Your task to perform on an android device: all mails in gmail Image 0: 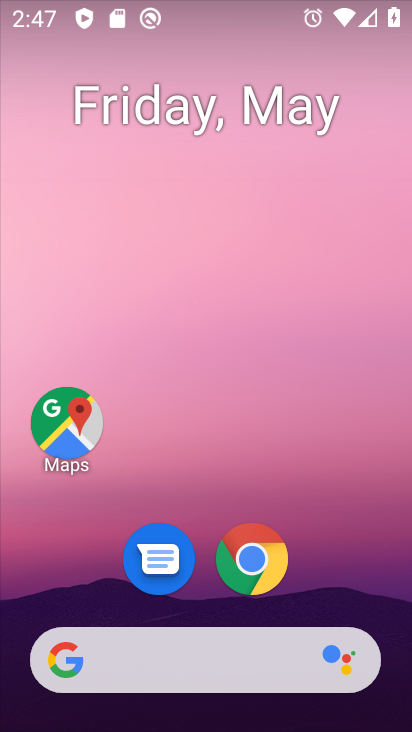
Step 0: drag from (329, 608) to (331, 81)
Your task to perform on an android device: all mails in gmail Image 1: 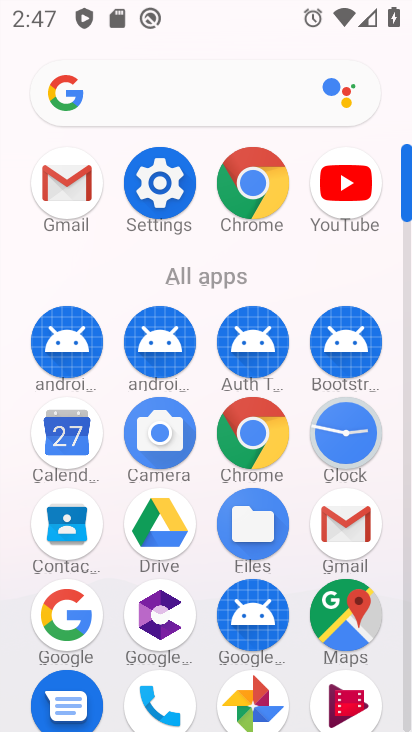
Step 1: click (74, 215)
Your task to perform on an android device: all mails in gmail Image 2: 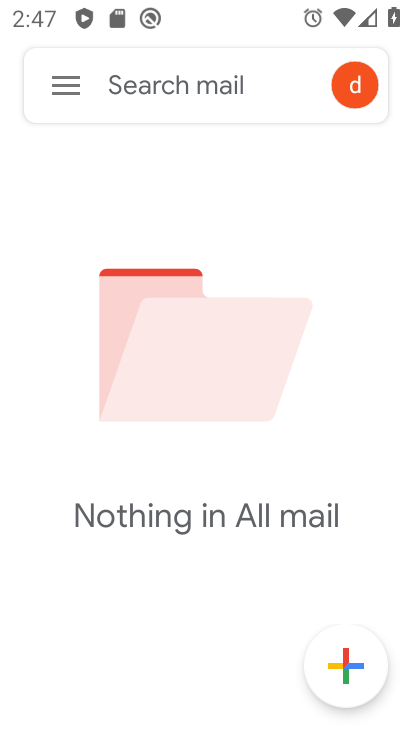
Step 2: click (61, 85)
Your task to perform on an android device: all mails in gmail Image 3: 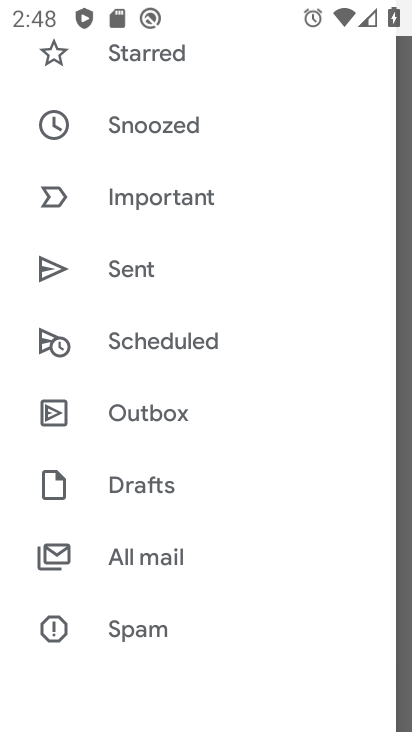
Step 3: drag from (216, 541) to (229, 288)
Your task to perform on an android device: all mails in gmail Image 4: 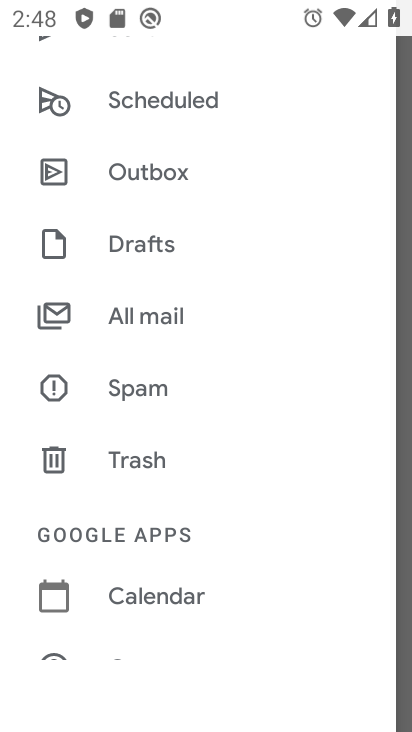
Step 4: click (197, 331)
Your task to perform on an android device: all mails in gmail Image 5: 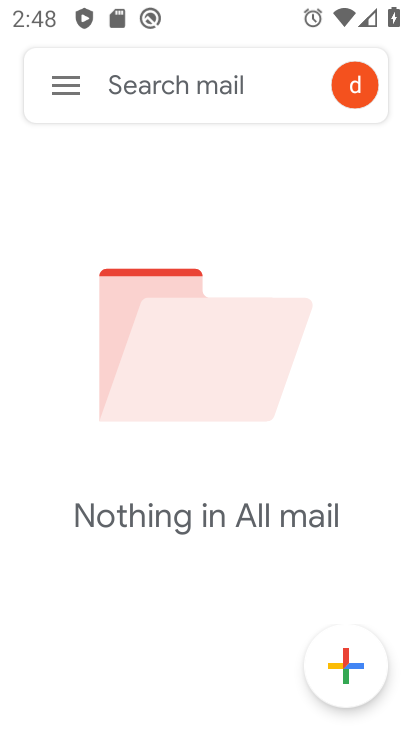
Step 5: task complete